Your task to perform on an android device: Go to wifi settings Image 0: 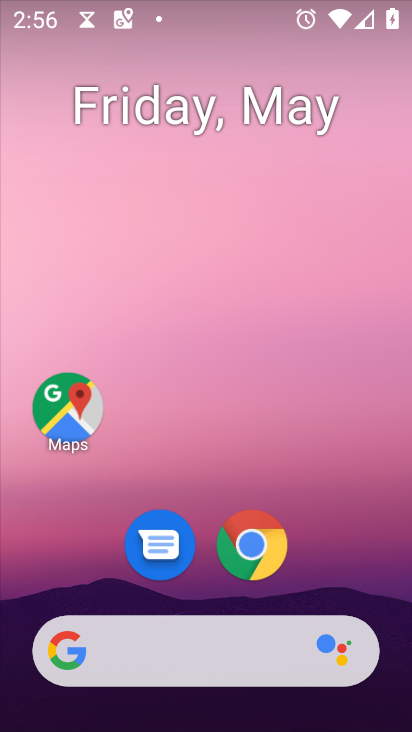
Step 0: drag from (336, 569) to (291, 80)
Your task to perform on an android device: Go to wifi settings Image 1: 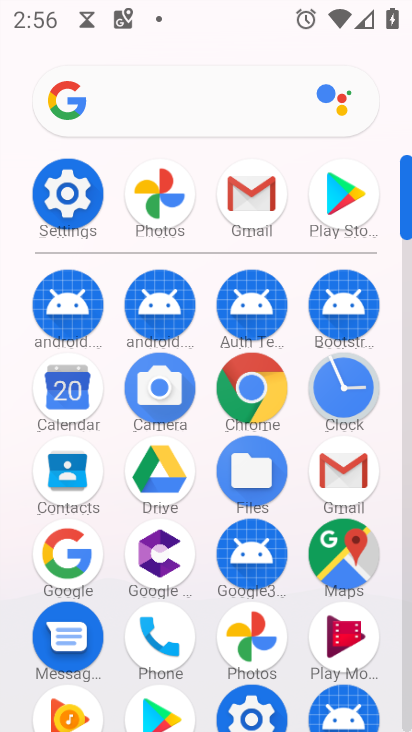
Step 1: click (81, 207)
Your task to perform on an android device: Go to wifi settings Image 2: 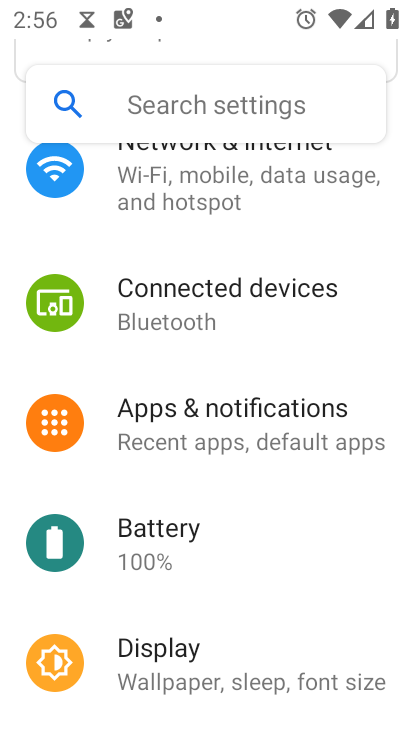
Step 2: click (231, 181)
Your task to perform on an android device: Go to wifi settings Image 3: 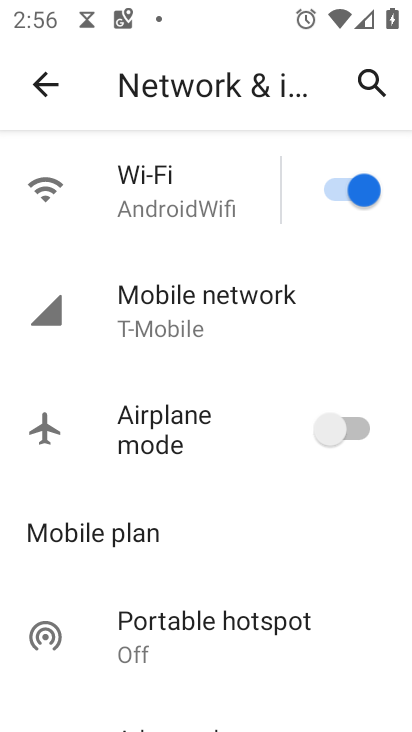
Step 3: click (181, 195)
Your task to perform on an android device: Go to wifi settings Image 4: 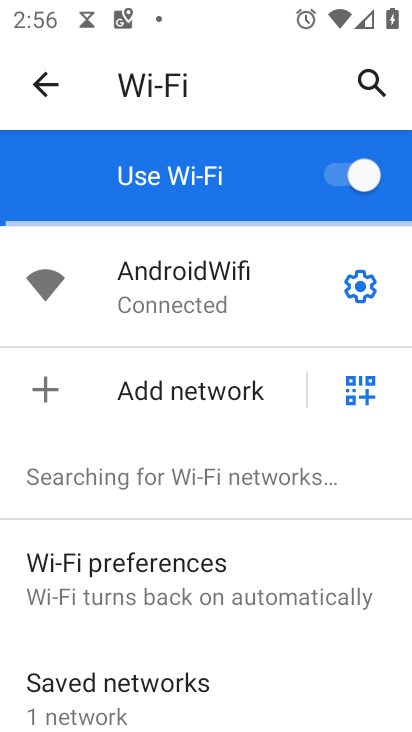
Step 4: task complete